Your task to perform on an android device: create a new album in the google photos Image 0: 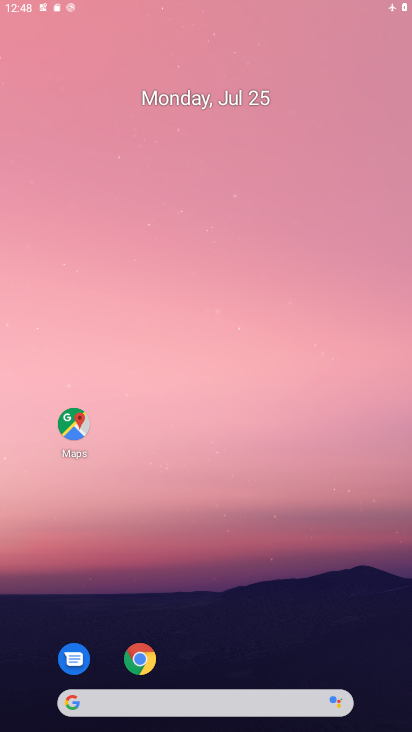
Step 0: press home button
Your task to perform on an android device: create a new album in the google photos Image 1: 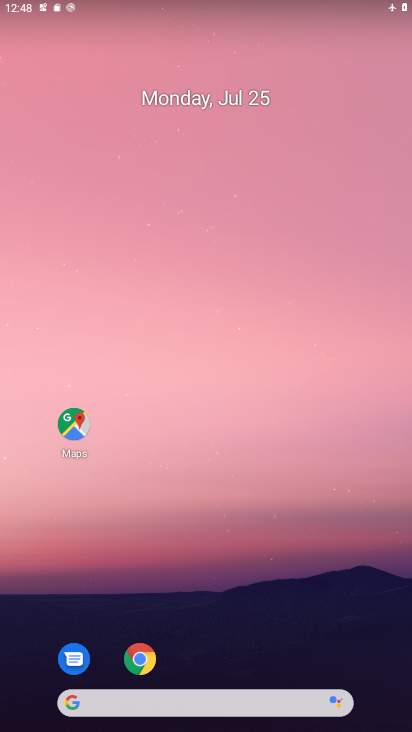
Step 1: drag from (197, 656) to (245, 104)
Your task to perform on an android device: create a new album in the google photos Image 2: 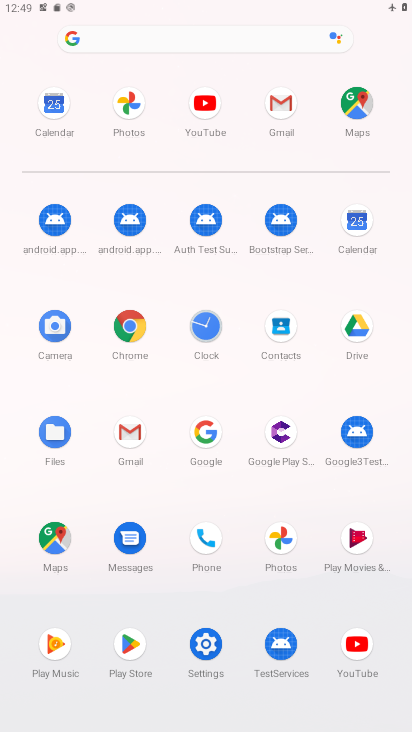
Step 2: click (206, 107)
Your task to perform on an android device: create a new album in the google photos Image 3: 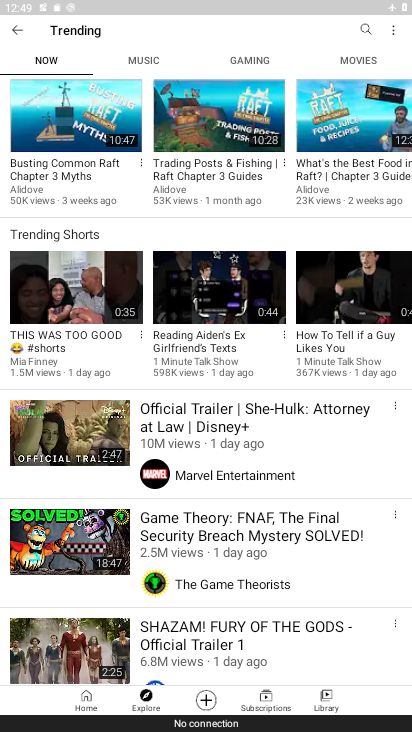
Step 3: press home button
Your task to perform on an android device: create a new album in the google photos Image 4: 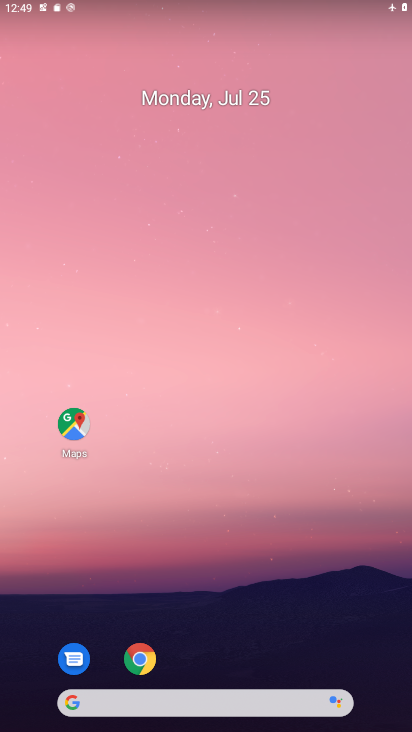
Step 4: drag from (195, 659) to (283, 97)
Your task to perform on an android device: create a new album in the google photos Image 5: 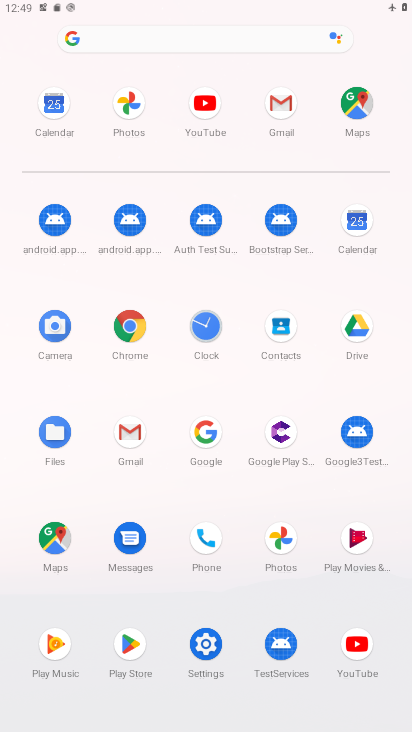
Step 5: click (279, 529)
Your task to perform on an android device: create a new album in the google photos Image 6: 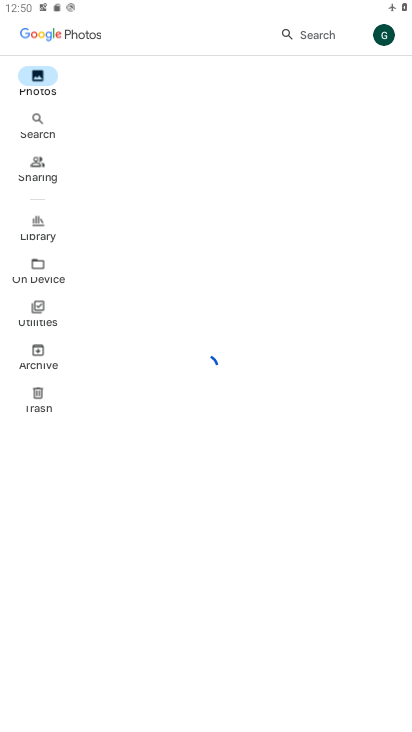
Step 6: click (38, 172)
Your task to perform on an android device: create a new album in the google photos Image 7: 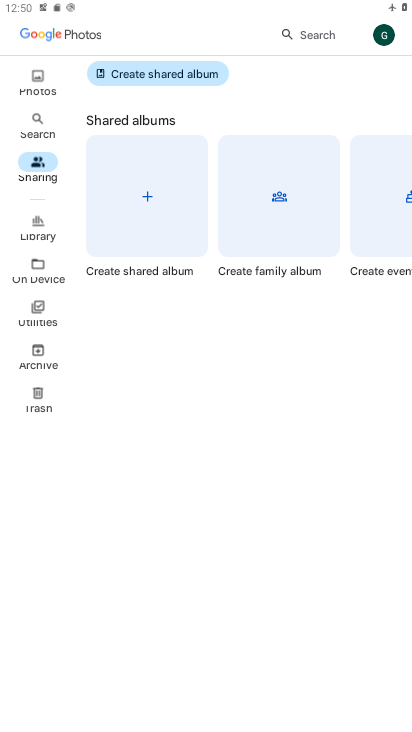
Step 7: click (137, 75)
Your task to perform on an android device: create a new album in the google photos Image 8: 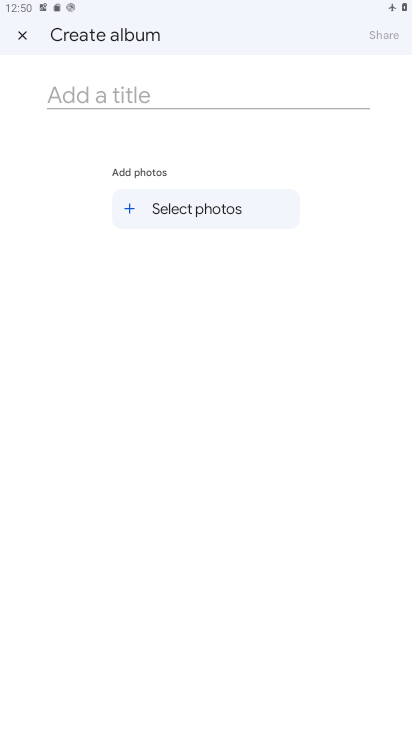
Step 8: click (173, 208)
Your task to perform on an android device: create a new album in the google photos Image 9: 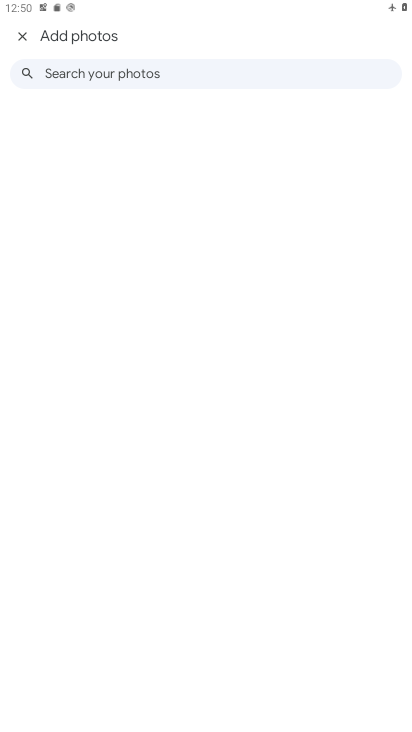
Step 9: task complete